Your task to perform on an android device: see creations saved in the google photos Image 0: 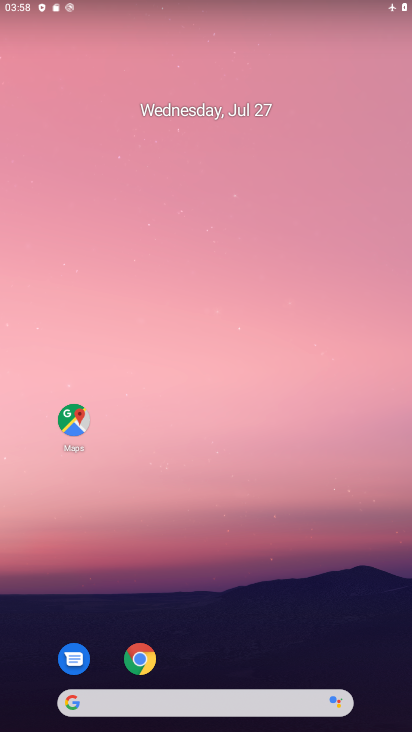
Step 0: drag from (254, 647) to (235, 39)
Your task to perform on an android device: see creations saved in the google photos Image 1: 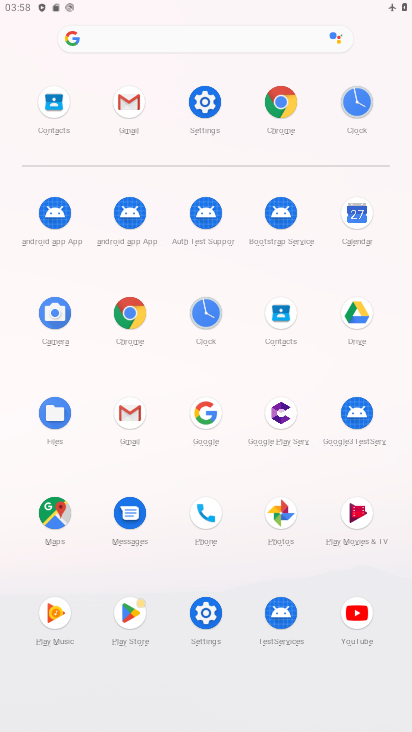
Step 1: click (279, 512)
Your task to perform on an android device: see creations saved in the google photos Image 2: 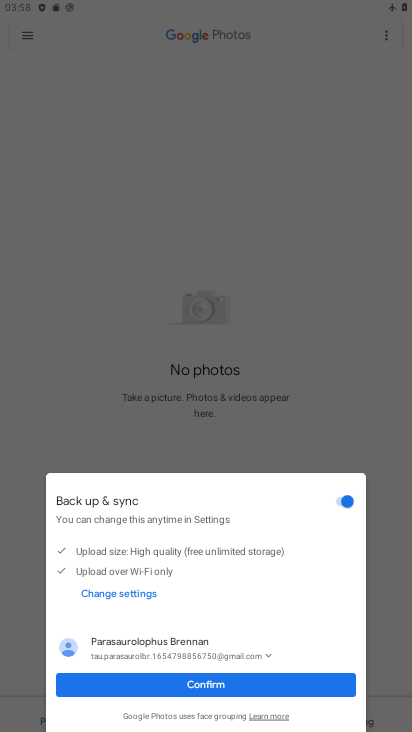
Step 2: click (202, 688)
Your task to perform on an android device: see creations saved in the google photos Image 3: 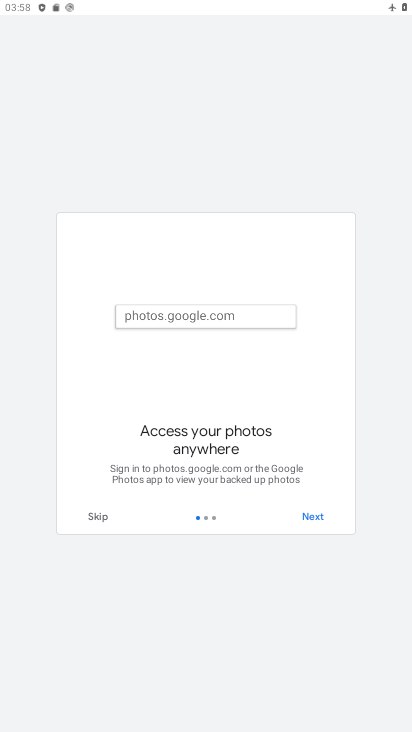
Step 3: click (93, 522)
Your task to perform on an android device: see creations saved in the google photos Image 4: 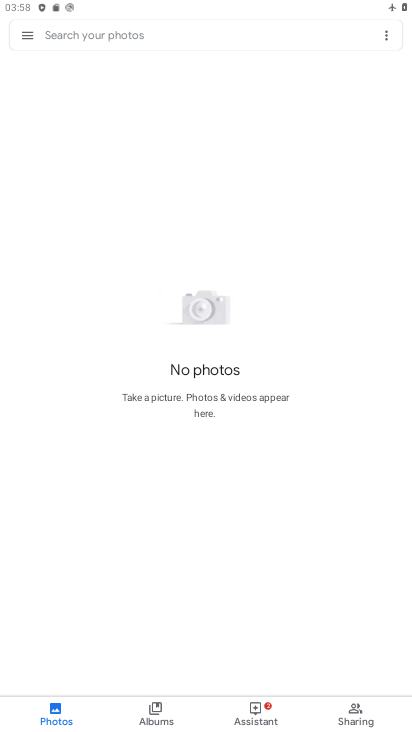
Step 4: click (47, 39)
Your task to perform on an android device: see creations saved in the google photos Image 5: 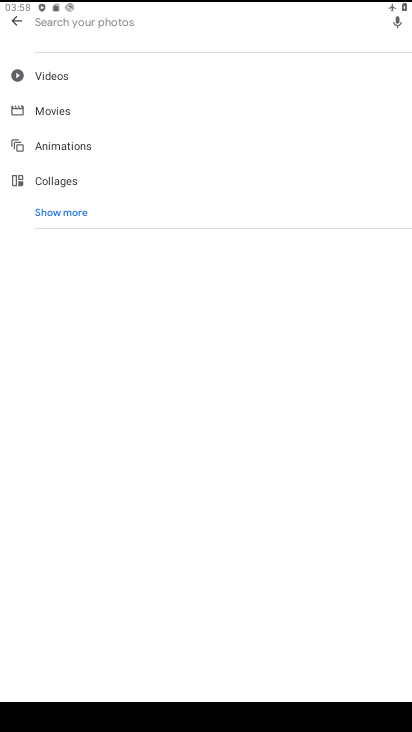
Step 5: click (34, 207)
Your task to perform on an android device: see creations saved in the google photos Image 6: 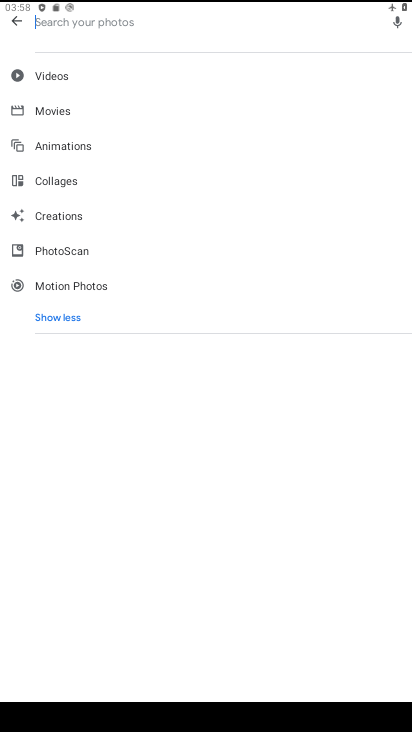
Step 6: click (37, 226)
Your task to perform on an android device: see creations saved in the google photos Image 7: 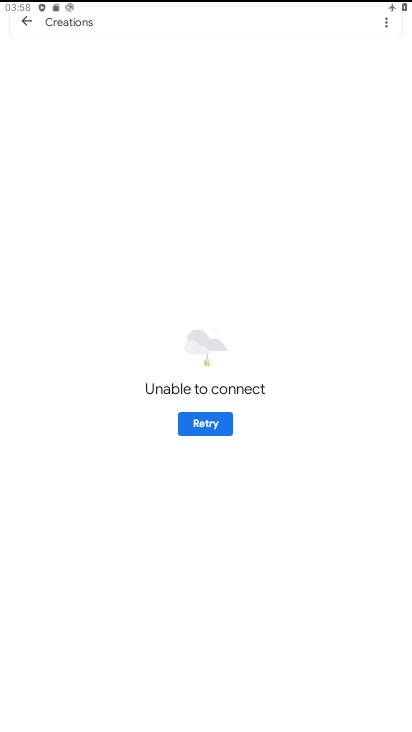
Step 7: task complete